Your task to perform on an android device: search for starred emails in the gmail app Image 0: 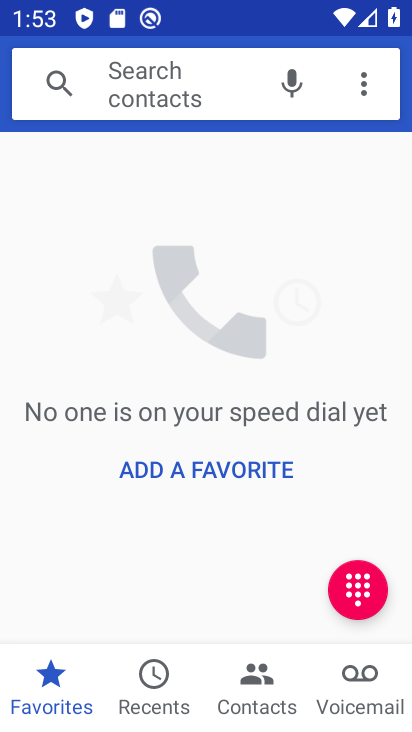
Step 0: press back button
Your task to perform on an android device: search for starred emails in the gmail app Image 1: 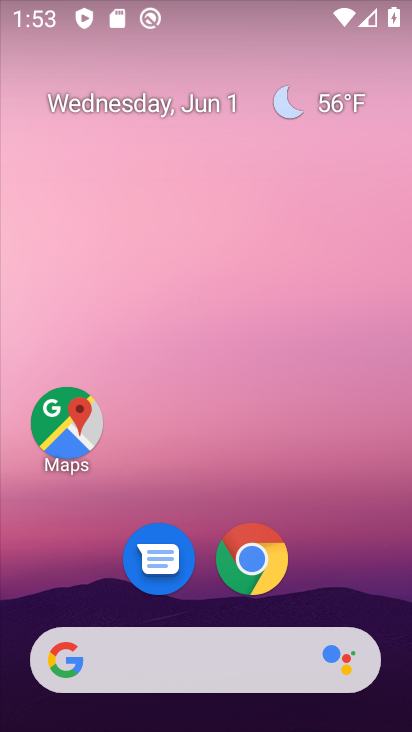
Step 1: drag from (326, 585) to (267, 87)
Your task to perform on an android device: search for starred emails in the gmail app Image 2: 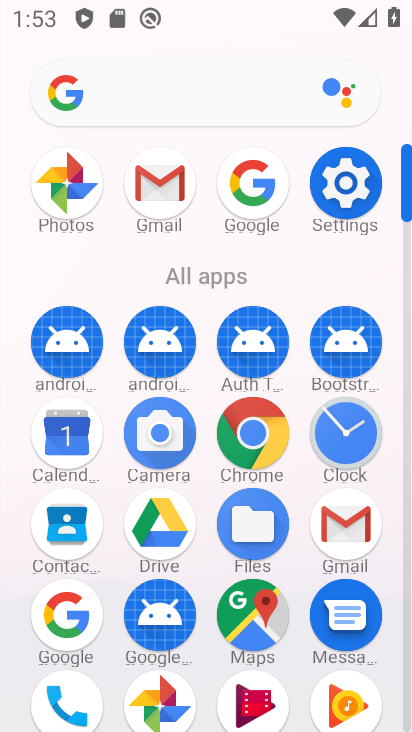
Step 2: click (342, 523)
Your task to perform on an android device: search for starred emails in the gmail app Image 3: 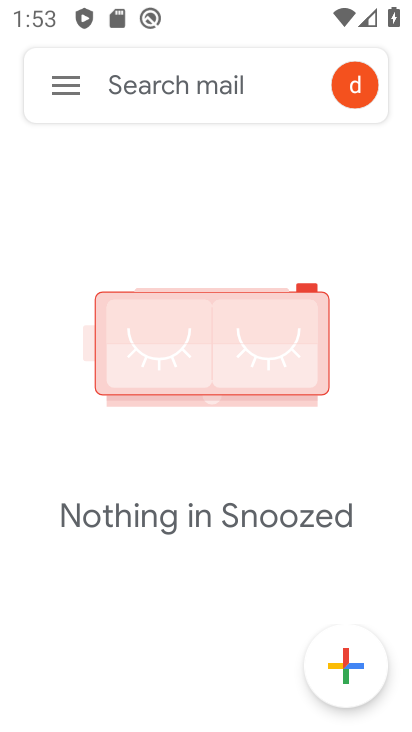
Step 3: click (69, 89)
Your task to perform on an android device: search for starred emails in the gmail app Image 4: 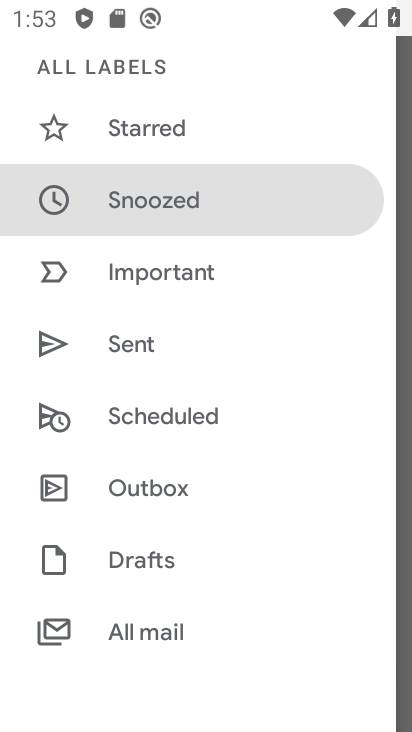
Step 4: drag from (147, 466) to (151, 373)
Your task to perform on an android device: search for starred emails in the gmail app Image 5: 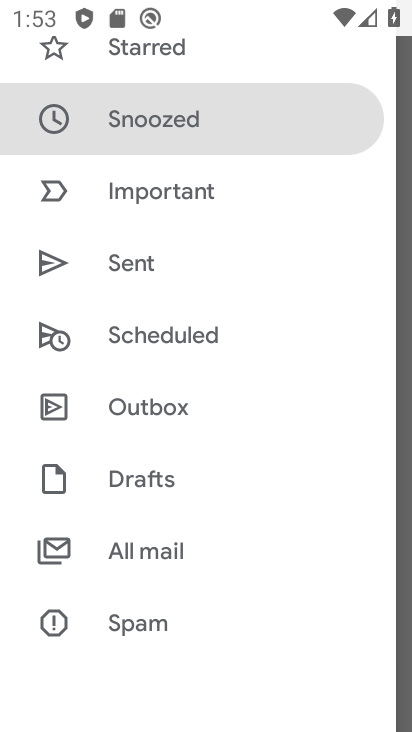
Step 5: drag from (176, 214) to (238, 394)
Your task to perform on an android device: search for starred emails in the gmail app Image 6: 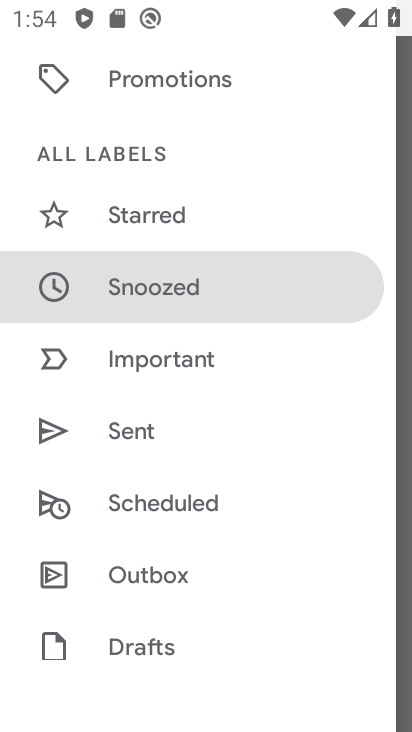
Step 6: click (168, 212)
Your task to perform on an android device: search for starred emails in the gmail app Image 7: 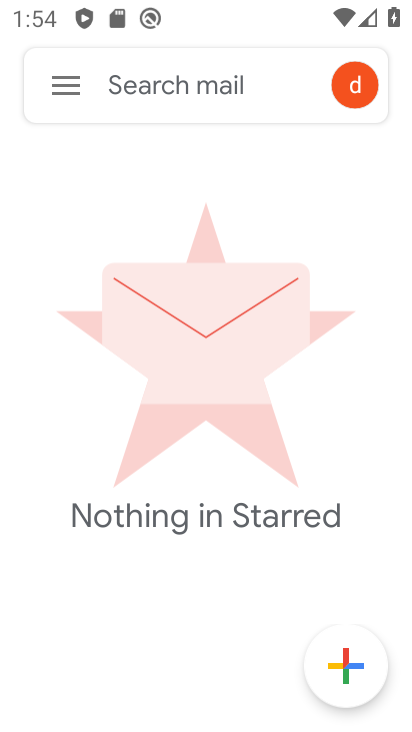
Step 7: click (77, 99)
Your task to perform on an android device: search for starred emails in the gmail app Image 8: 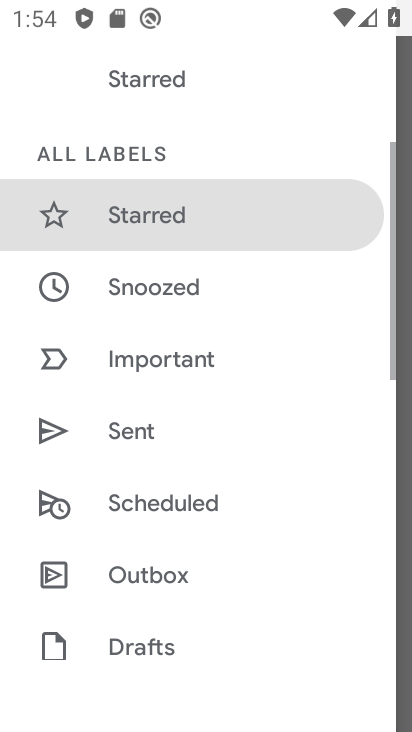
Step 8: drag from (168, 134) to (201, 261)
Your task to perform on an android device: search for starred emails in the gmail app Image 9: 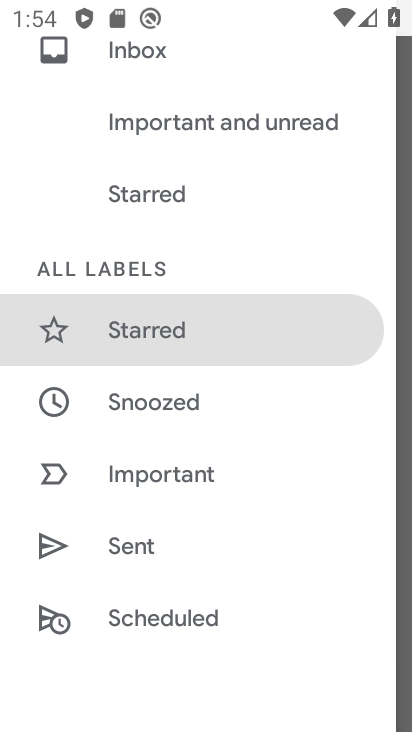
Step 9: click (157, 54)
Your task to perform on an android device: search for starred emails in the gmail app Image 10: 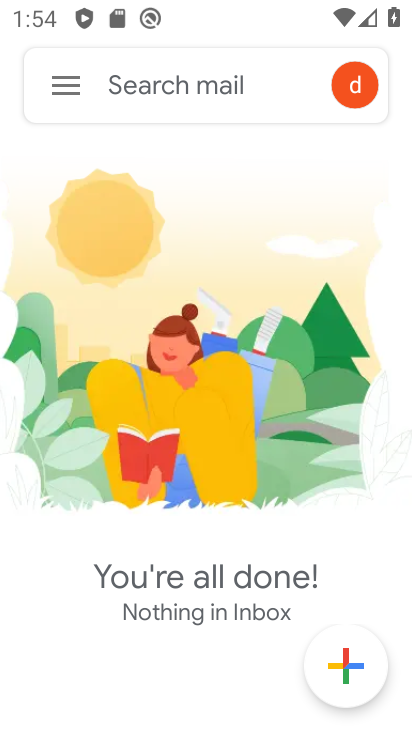
Step 10: task complete